Your task to perform on an android device: When is my next appointment? Image 0: 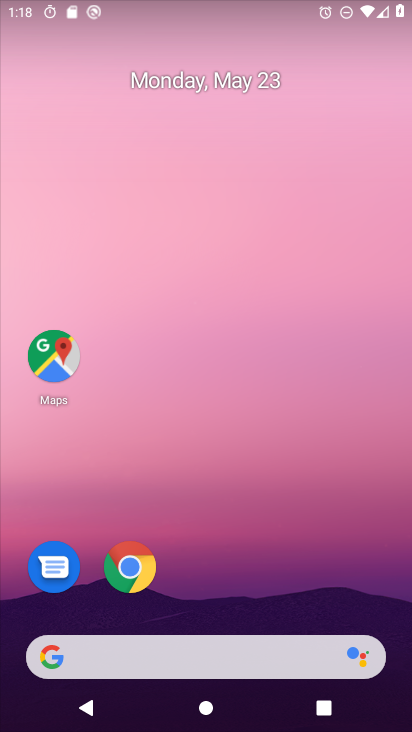
Step 0: click (193, 71)
Your task to perform on an android device: When is my next appointment? Image 1: 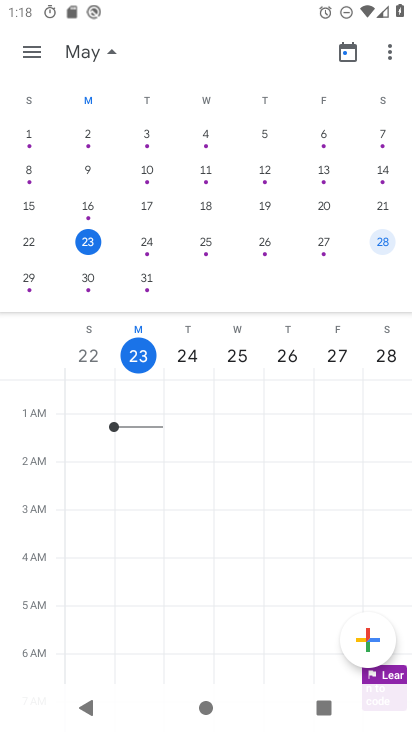
Step 1: task complete